Your task to perform on an android device: Open the web browser Image 0: 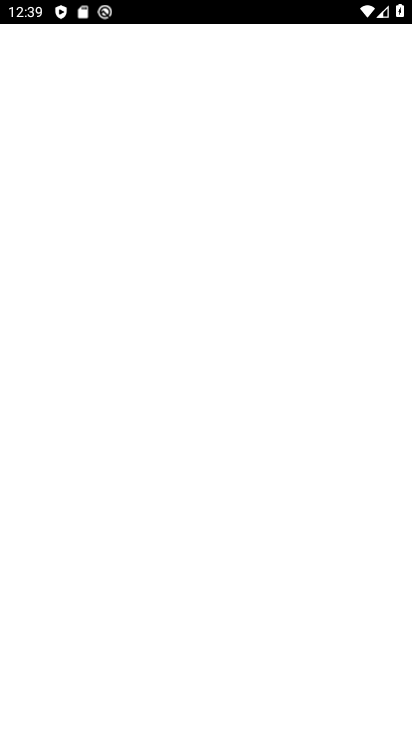
Step 0: drag from (209, 623) to (309, 78)
Your task to perform on an android device: Open the web browser Image 1: 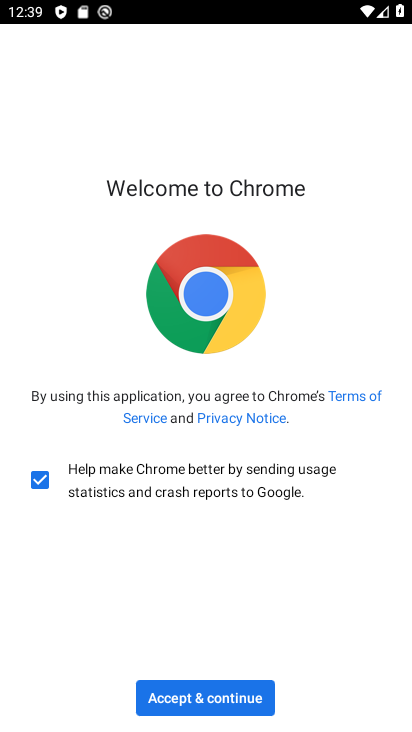
Step 1: click (216, 698)
Your task to perform on an android device: Open the web browser Image 2: 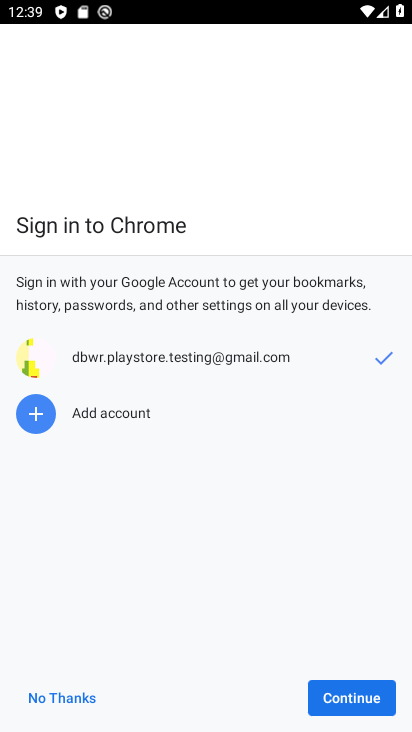
Step 2: click (360, 703)
Your task to perform on an android device: Open the web browser Image 3: 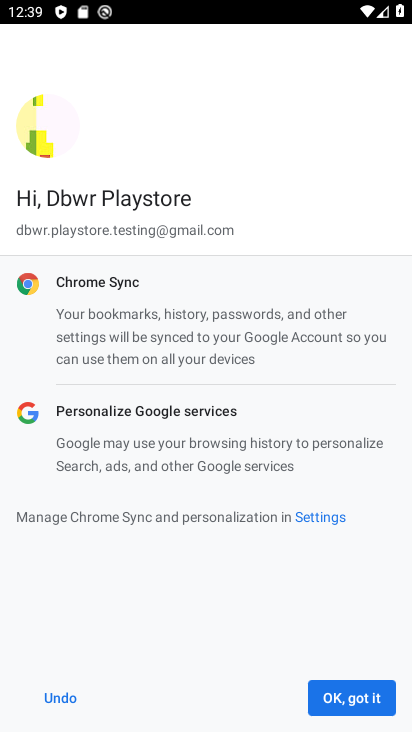
Step 3: click (360, 703)
Your task to perform on an android device: Open the web browser Image 4: 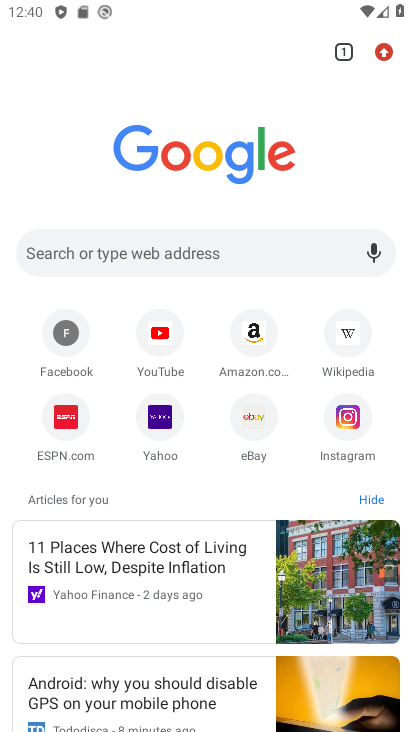
Step 4: task complete